Your task to perform on an android device: Open Maps and search for coffee Image 0: 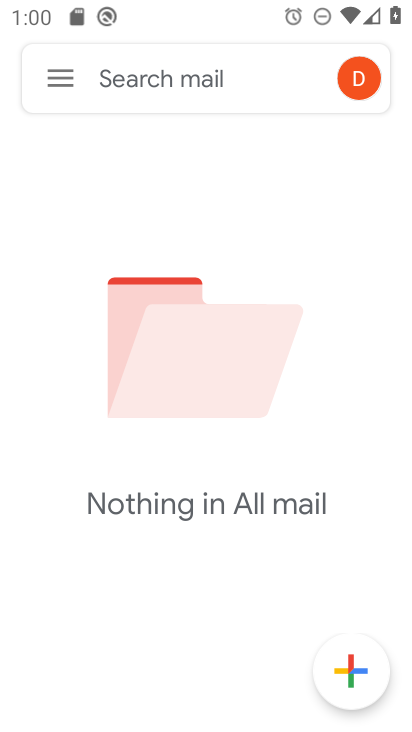
Step 0: press home button
Your task to perform on an android device: Open Maps and search for coffee Image 1: 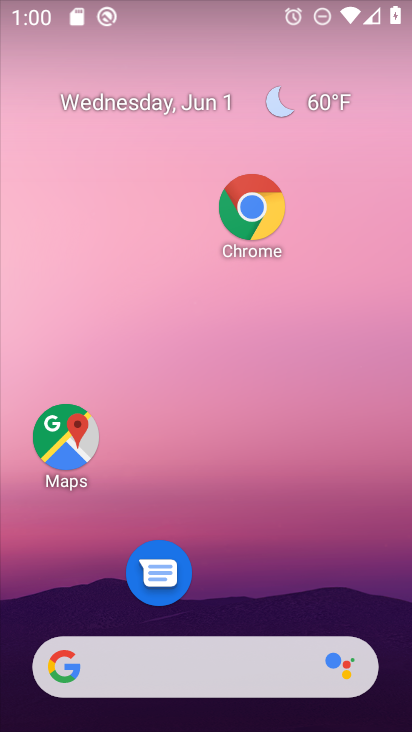
Step 1: click (93, 460)
Your task to perform on an android device: Open Maps and search for coffee Image 2: 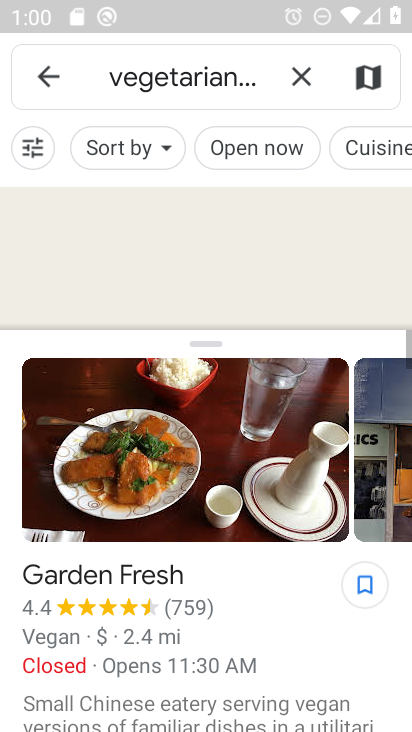
Step 2: click (301, 76)
Your task to perform on an android device: Open Maps and search for coffee Image 3: 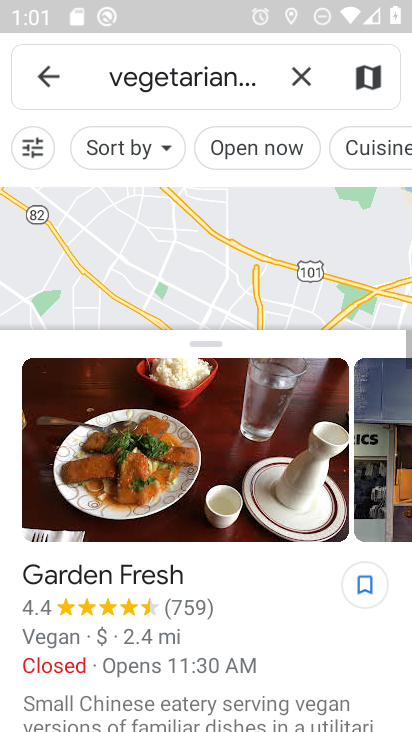
Step 3: click (282, 82)
Your task to perform on an android device: Open Maps and search for coffee Image 4: 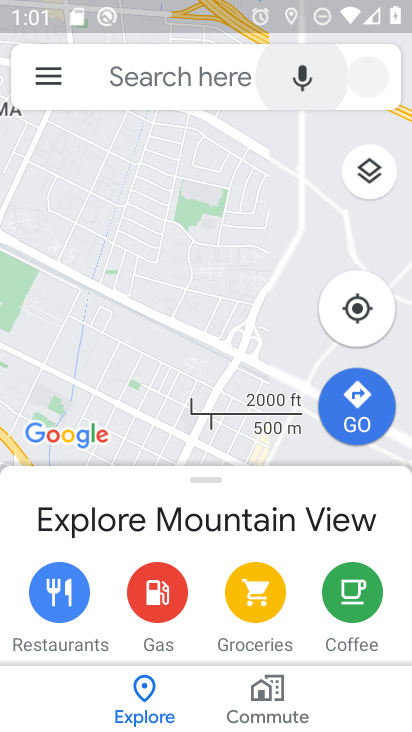
Step 4: click (170, 80)
Your task to perform on an android device: Open Maps and search for coffee Image 5: 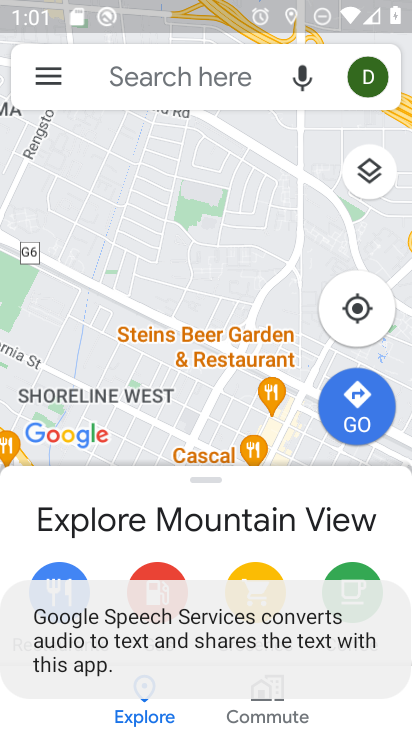
Step 5: click (152, 79)
Your task to perform on an android device: Open Maps and search for coffee Image 6: 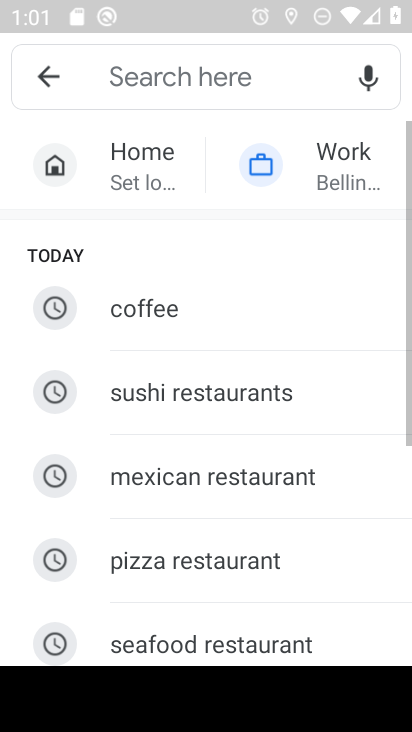
Step 6: click (170, 316)
Your task to perform on an android device: Open Maps and search for coffee Image 7: 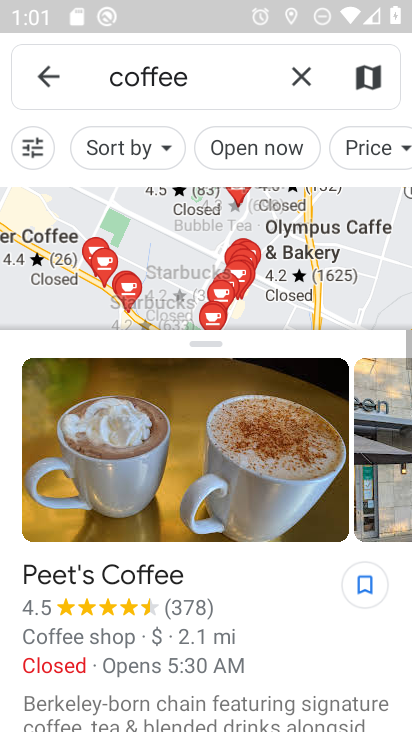
Step 7: task complete